Your task to perform on an android device: Show the shopping cart on target.com. Image 0: 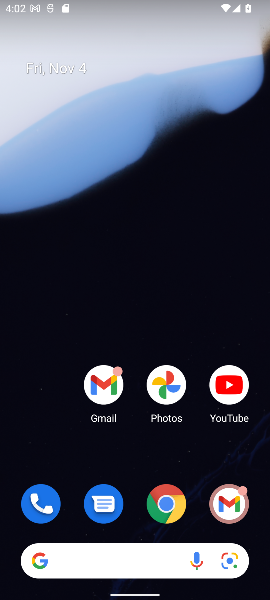
Step 0: click (171, 517)
Your task to perform on an android device: Show the shopping cart on target.com. Image 1: 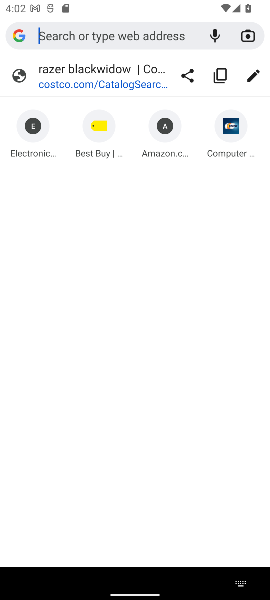
Step 1: click (120, 32)
Your task to perform on an android device: Show the shopping cart on target.com. Image 2: 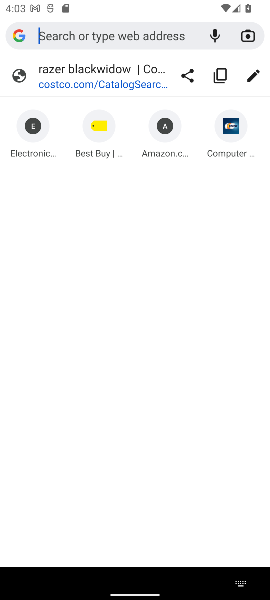
Step 2: type "target.com"
Your task to perform on an android device: Show the shopping cart on target.com. Image 3: 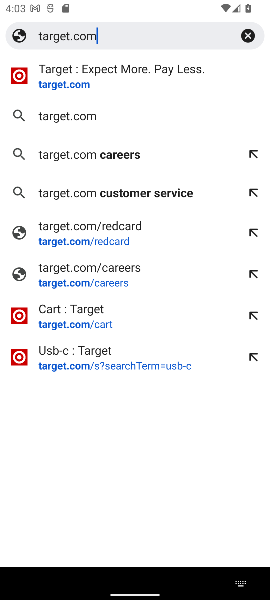
Step 3: click (61, 90)
Your task to perform on an android device: Show the shopping cart on target.com. Image 4: 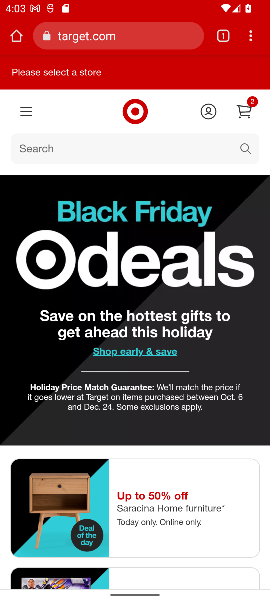
Step 4: click (241, 110)
Your task to perform on an android device: Show the shopping cart on target.com. Image 5: 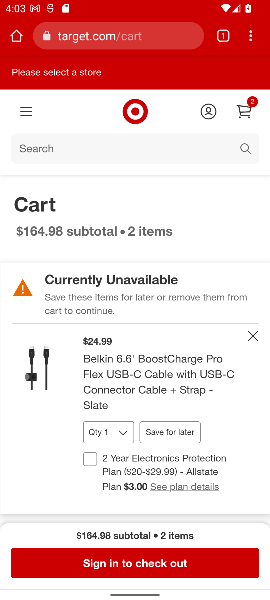
Step 5: task complete